Your task to perform on an android device: Go to calendar. Show me events next week Image 0: 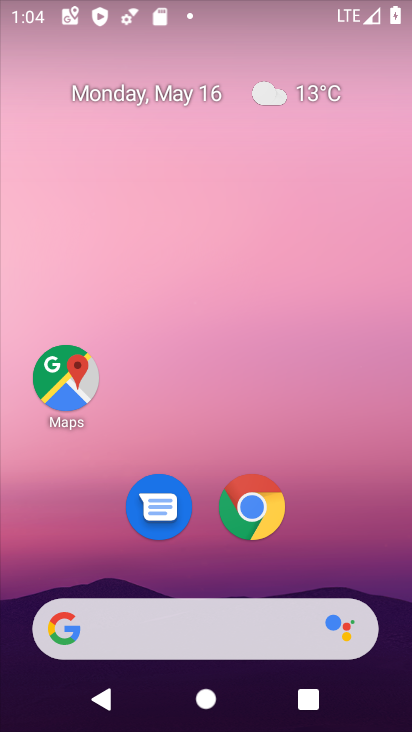
Step 0: click (310, 97)
Your task to perform on an android device: Go to calendar. Show me events next week Image 1: 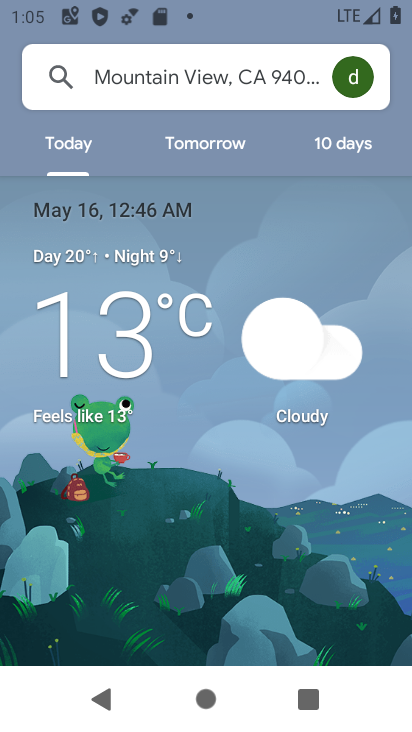
Step 1: press home button
Your task to perform on an android device: Go to calendar. Show me events next week Image 2: 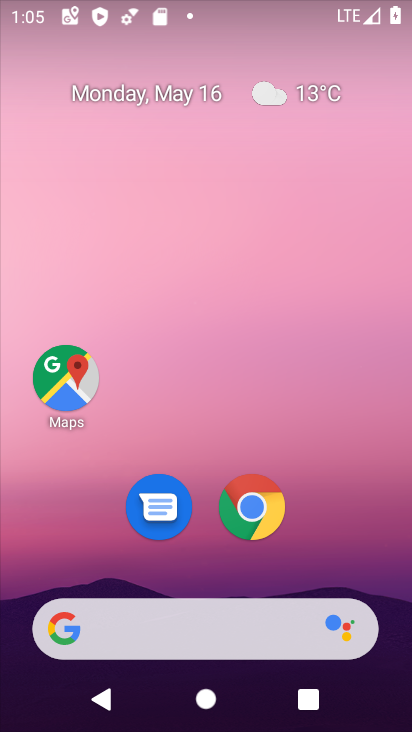
Step 2: click (160, 92)
Your task to perform on an android device: Go to calendar. Show me events next week Image 3: 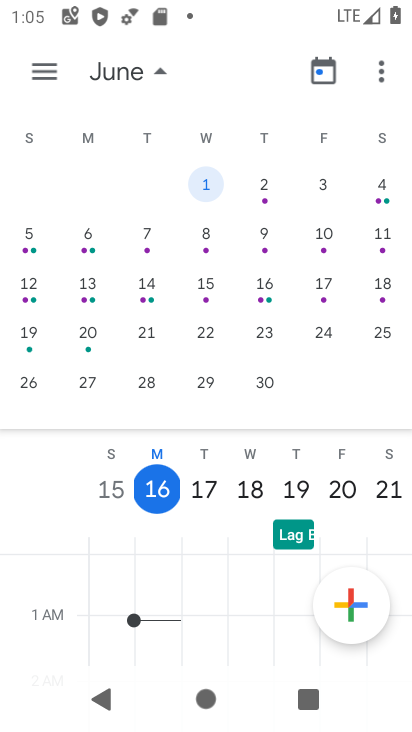
Step 3: click (138, 69)
Your task to perform on an android device: Go to calendar. Show me events next week Image 4: 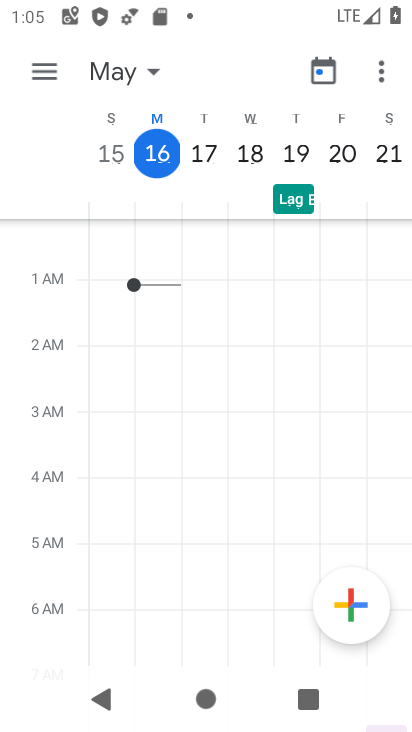
Step 4: click (137, 68)
Your task to perform on an android device: Go to calendar. Show me events next week Image 5: 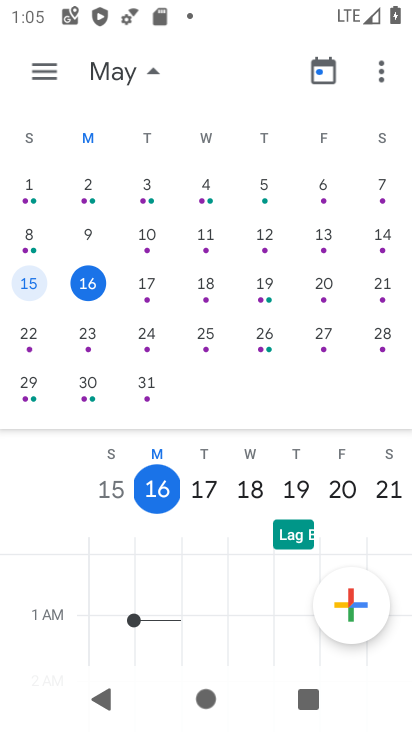
Step 5: click (34, 330)
Your task to perform on an android device: Go to calendar. Show me events next week Image 6: 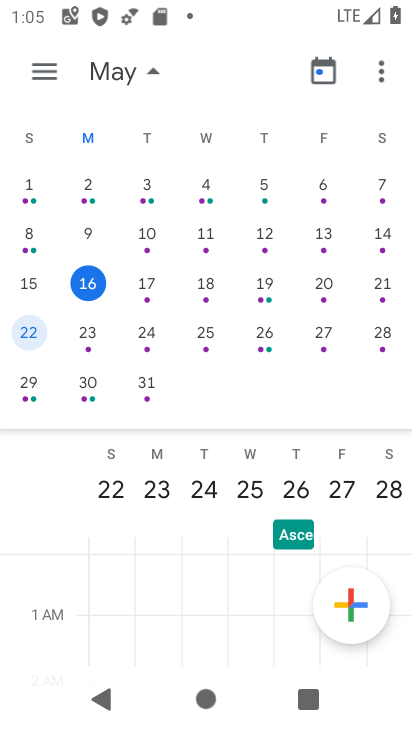
Step 6: task complete